Your task to perform on an android device: What's the weather? Image 0: 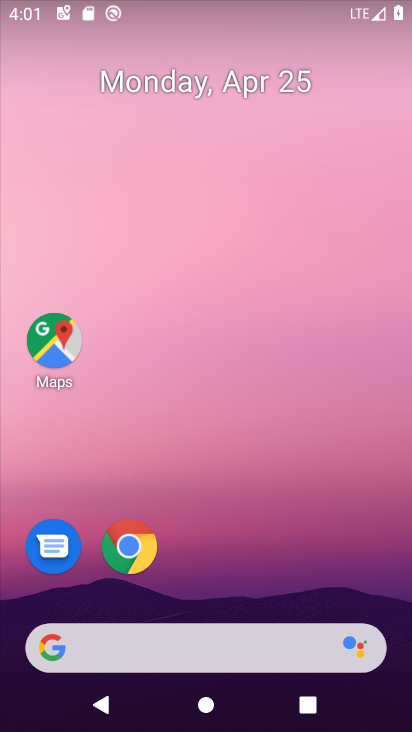
Step 0: drag from (227, 523) to (284, 58)
Your task to perform on an android device: What's the weather? Image 1: 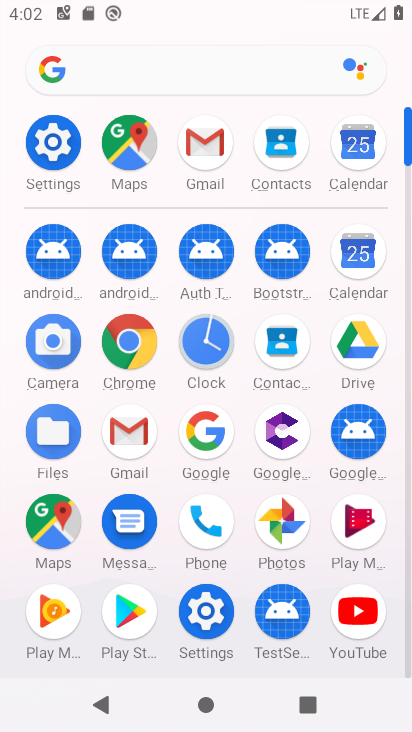
Step 1: click (123, 75)
Your task to perform on an android device: What's the weather? Image 2: 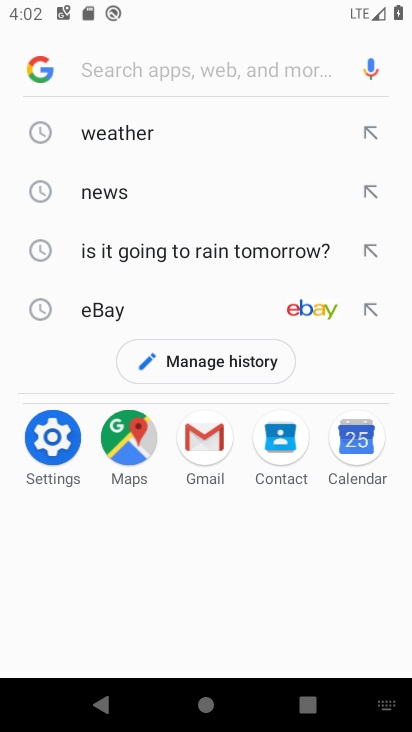
Step 2: type "what's the weather"
Your task to perform on an android device: What's the weather? Image 3: 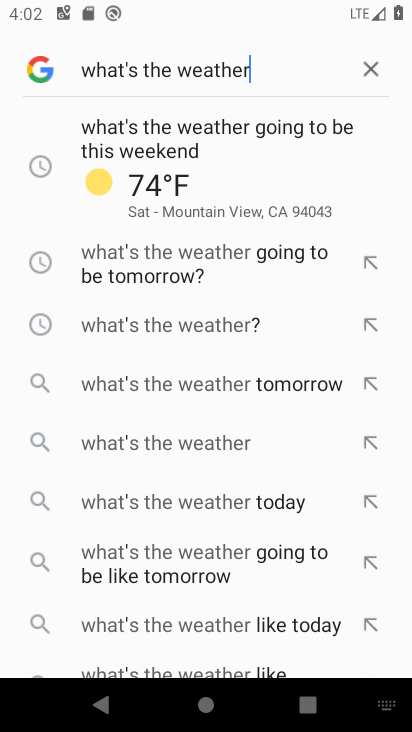
Step 3: click (218, 321)
Your task to perform on an android device: What's the weather? Image 4: 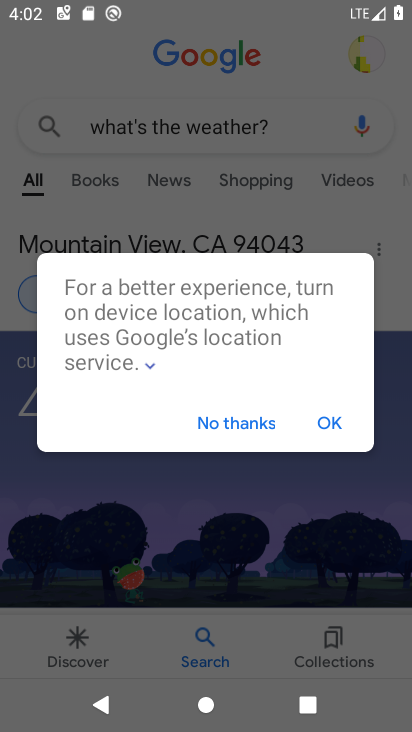
Step 4: click (247, 423)
Your task to perform on an android device: What's the weather? Image 5: 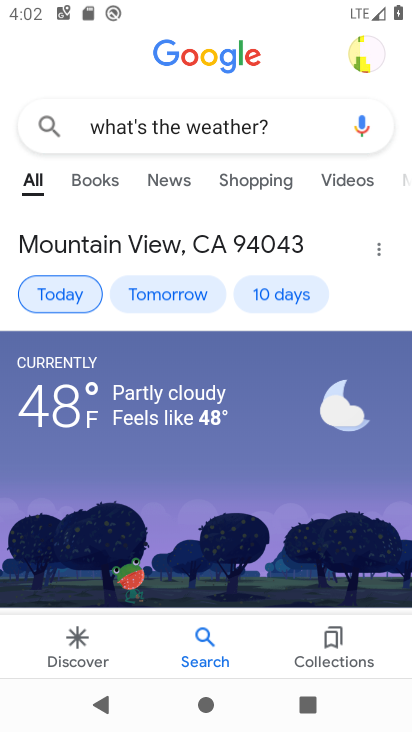
Step 5: task complete